Your task to perform on an android device: Search for hotels in San Diego Image 0: 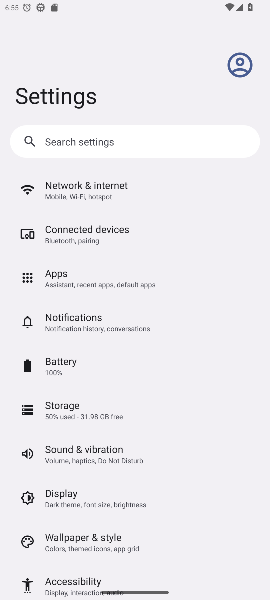
Step 0: press home button
Your task to perform on an android device: Search for hotels in San Diego Image 1: 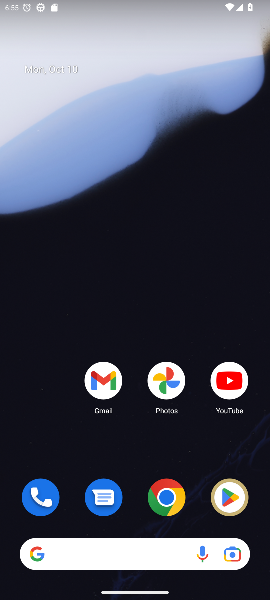
Step 1: drag from (135, 465) to (139, 141)
Your task to perform on an android device: Search for hotels in San Diego Image 2: 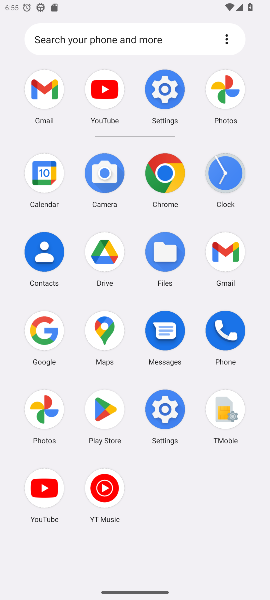
Step 2: click (36, 325)
Your task to perform on an android device: Search for hotels in San Diego Image 3: 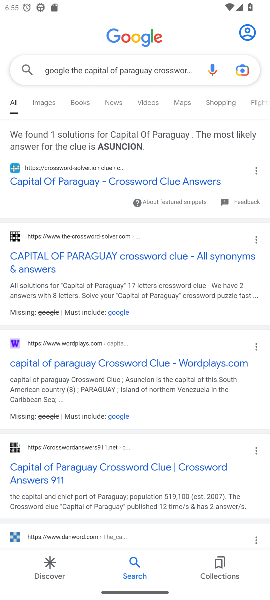
Step 3: click (94, 64)
Your task to perform on an android device: Search for hotels in San Diego Image 4: 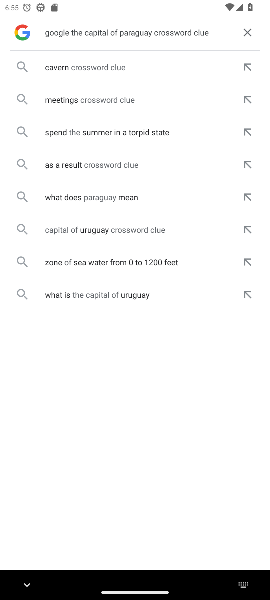
Step 4: click (243, 29)
Your task to perform on an android device: Search for hotels in San Diego Image 5: 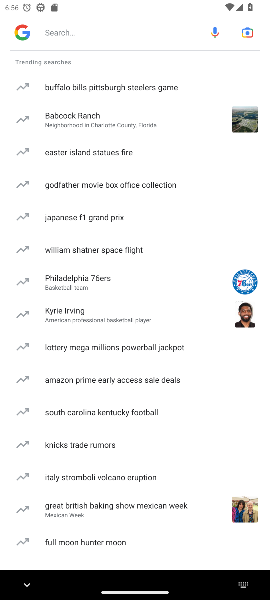
Step 5: click (104, 24)
Your task to perform on an android device: Search for hotels in San Diego Image 6: 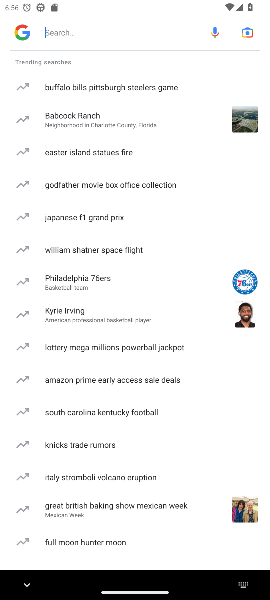
Step 6: type "Search for hotels in San Diego "
Your task to perform on an android device: Search for hotels in San Diego Image 7: 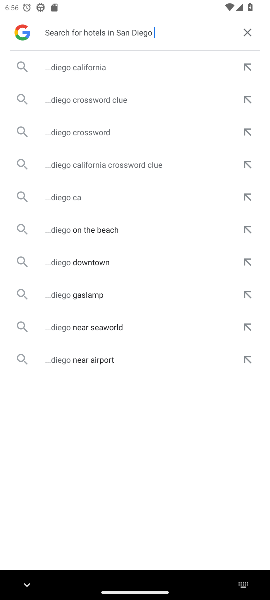
Step 7: click (90, 64)
Your task to perform on an android device: Search for hotels in San Diego Image 8: 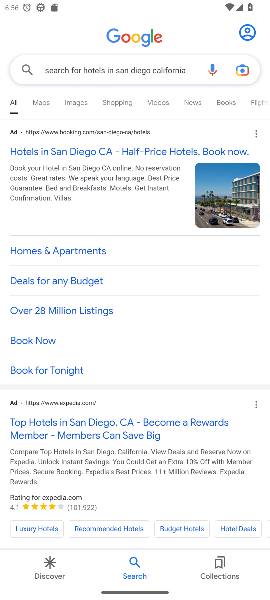
Step 8: click (86, 149)
Your task to perform on an android device: Search for hotels in San Diego Image 9: 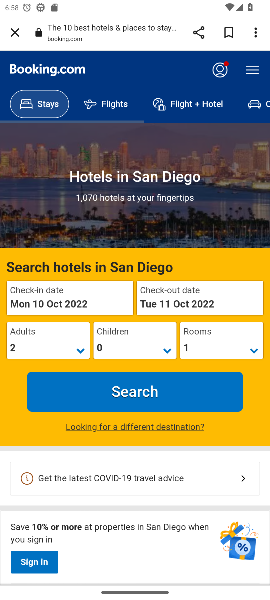
Step 9: click (119, 369)
Your task to perform on an android device: Search for hotels in San Diego Image 10: 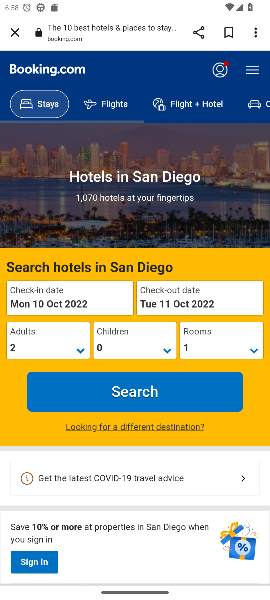
Step 10: click (116, 387)
Your task to perform on an android device: Search for hotels in San Diego Image 11: 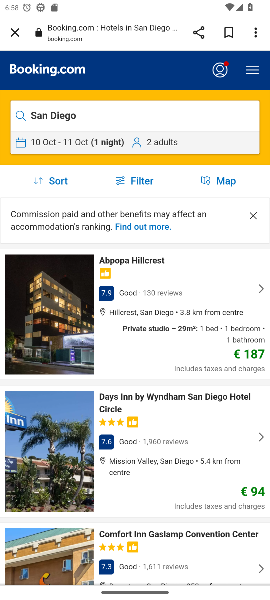
Step 11: task complete